Your task to perform on an android device: refresh tabs in the chrome app Image 0: 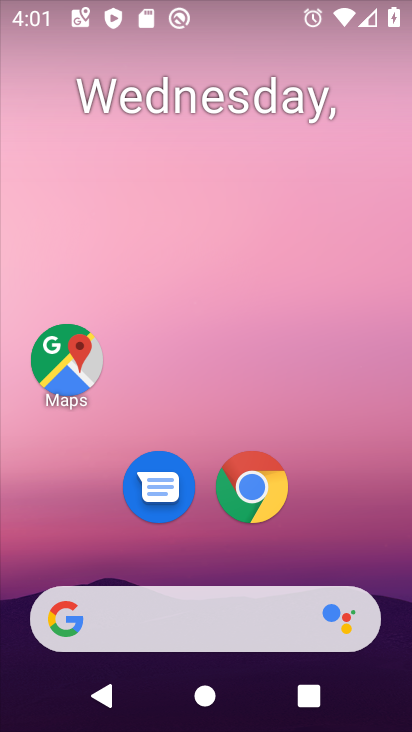
Step 0: drag from (367, 544) to (375, 231)
Your task to perform on an android device: refresh tabs in the chrome app Image 1: 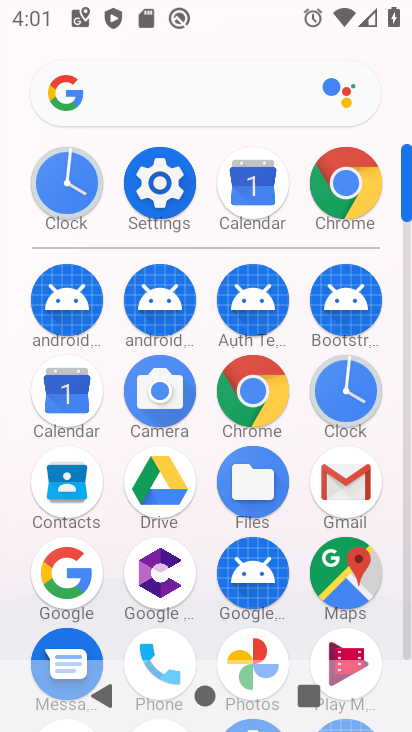
Step 1: click (269, 399)
Your task to perform on an android device: refresh tabs in the chrome app Image 2: 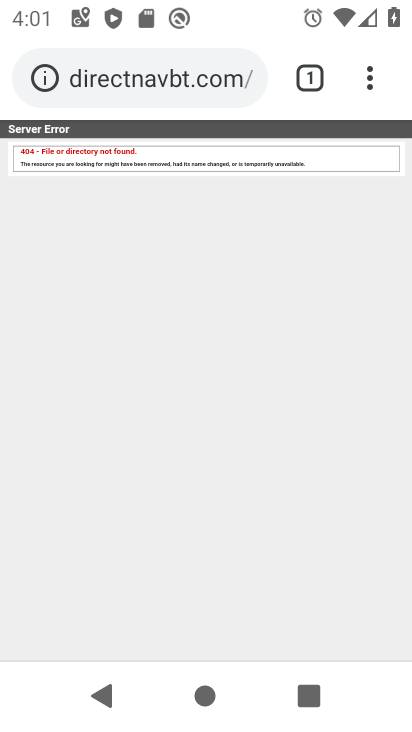
Step 2: click (367, 89)
Your task to perform on an android device: refresh tabs in the chrome app Image 3: 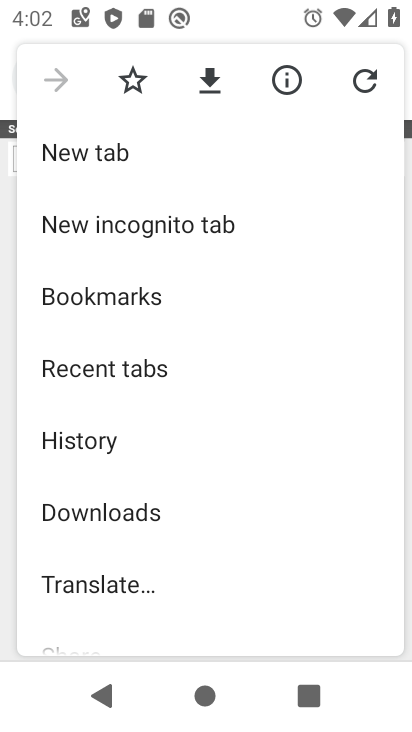
Step 3: click (365, 81)
Your task to perform on an android device: refresh tabs in the chrome app Image 4: 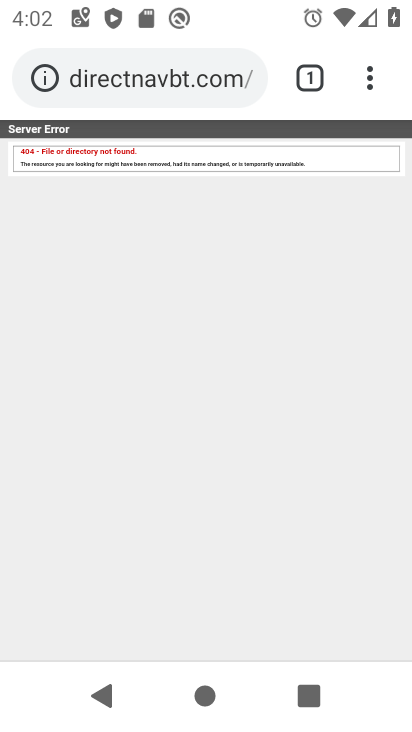
Step 4: task complete